Your task to perform on an android device: Go to Wikipedia Image 0: 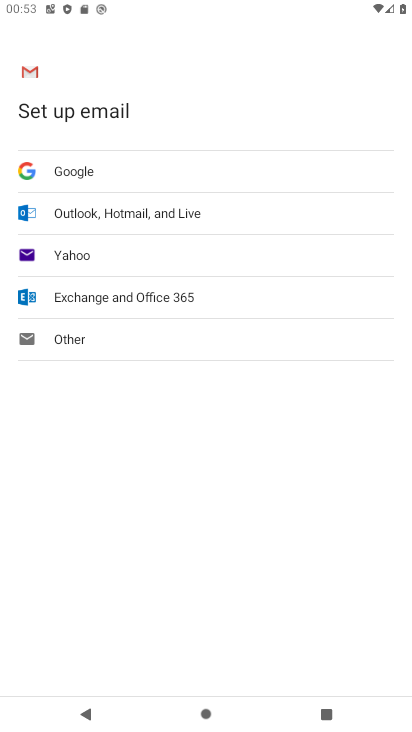
Step 0: press home button
Your task to perform on an android device: Go to Wikipedia Image 1: 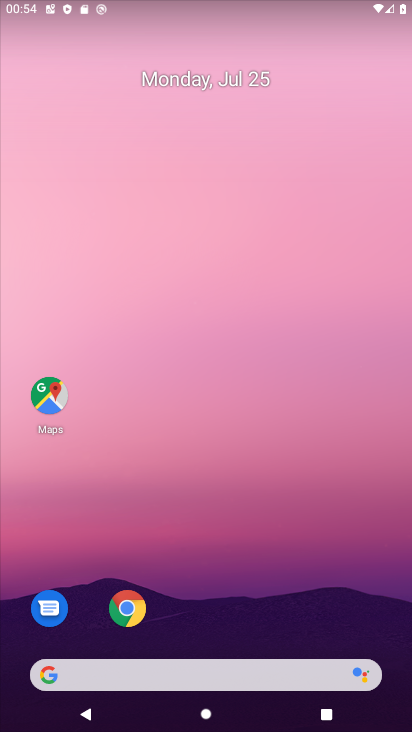
Step 1: drag from (203, 651) to (133, 65)
Your task to perform on an android device: Go to Wikipedia Image 2: 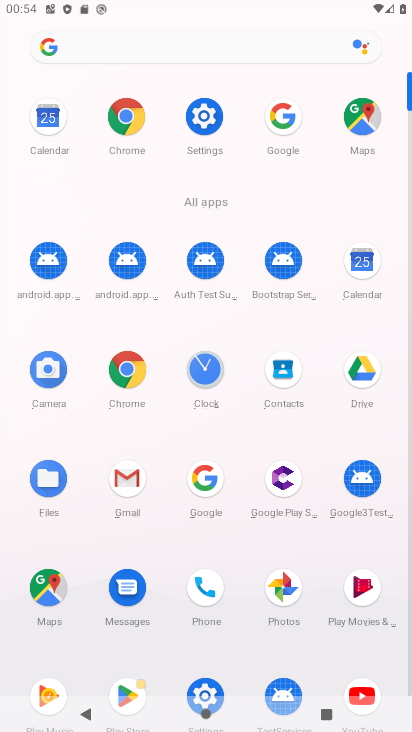
Step 2: click (130, 363)
Your task to perform on an android device: Go to Wikipedia Image 3: 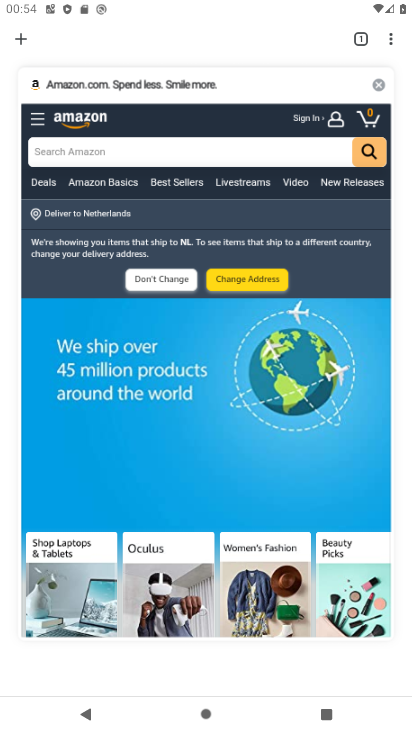
Step 3: click (352, 35)
Your task to perform on an android device: Go to Wikipedia Image 4: 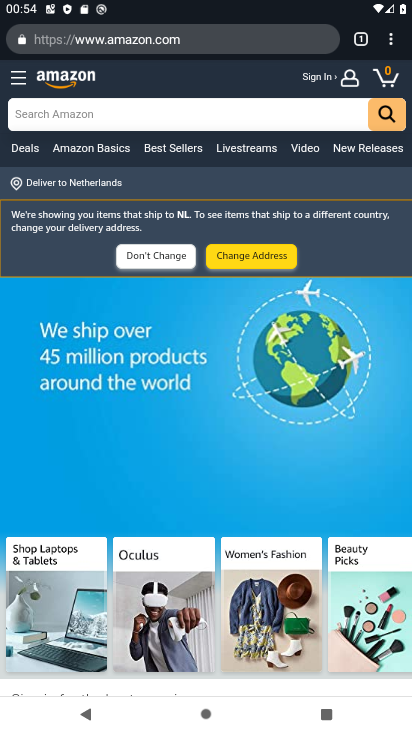
Step 4: click (362, 45)
Your task to perform on an android device: Go to Wikipedia Image 5: 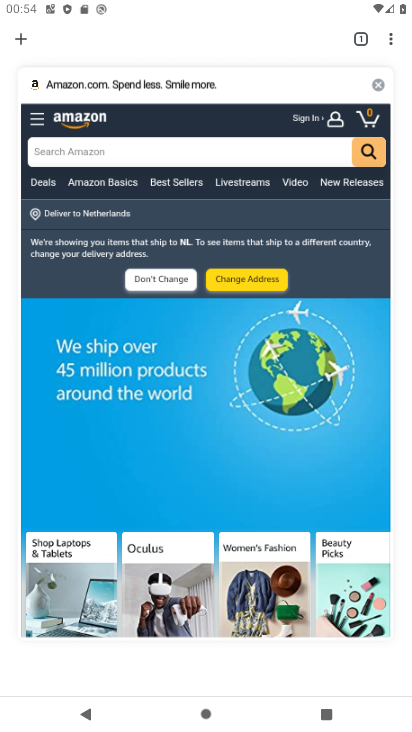
Step 5: click (25, 36)
Your task to perform on an android device: Go to Wikipedia Image 6: 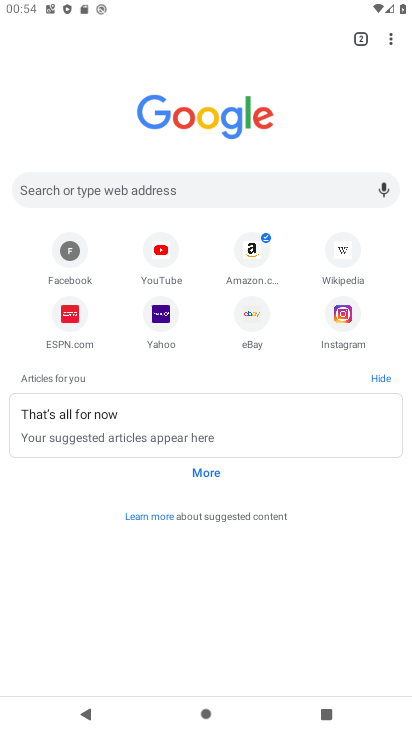
Step 6: click (337, 250)
Your task to perform on an android device: Go to Wikipedia Image 7: 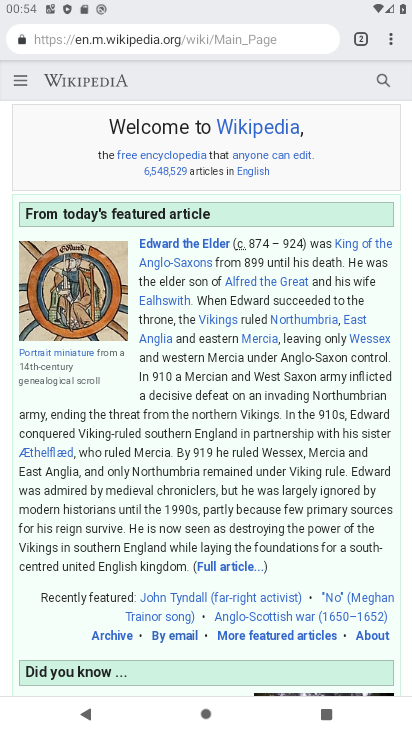
Step 7: task complete